Your task to perform on an android device: turn on airplane mode Image 0: 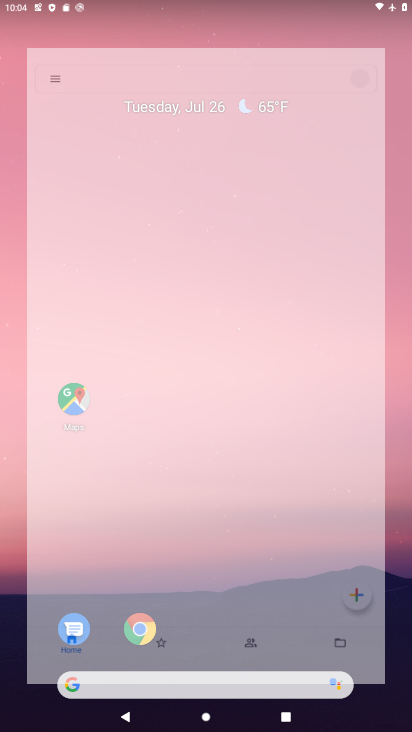
Step 0: drag from (318, 475) to (325, 1)
Your task to perform on an android device: turn on airplane mode Image 1: 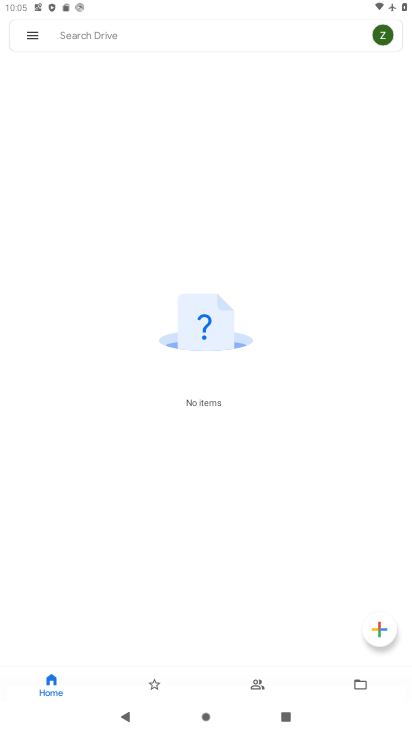
Step 1: press home button
Your task to perform on an android device: turn on airplane mode Image 2: 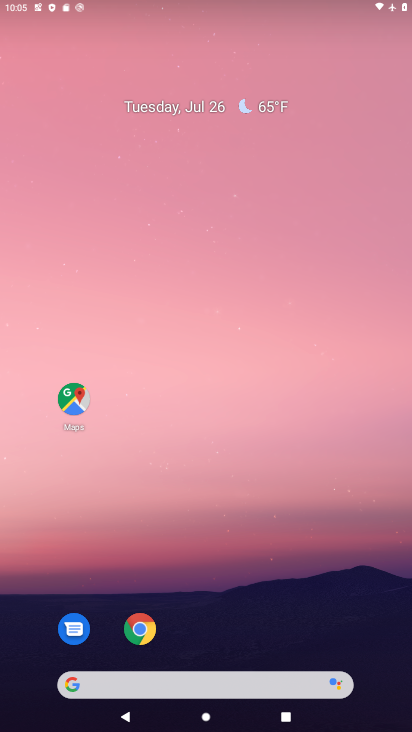
Step 2: drag from (340, 606) to (317, 73)
Your task to perform on an android device: turn on airplane mode Image 3: 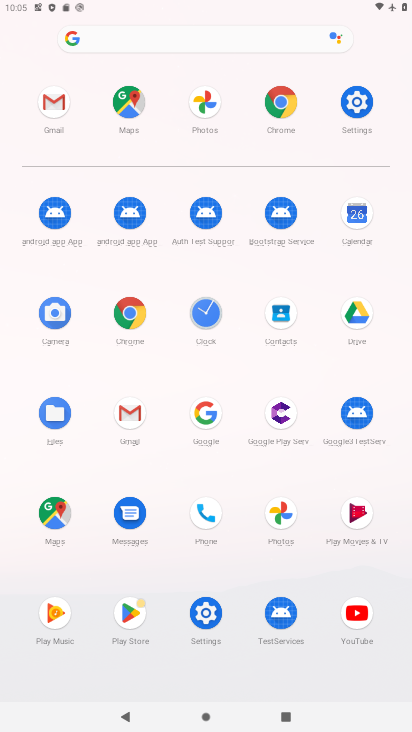
Step 3: click (361, 105)
Your task to perform on an android device: turn on airplane mode Image 4: 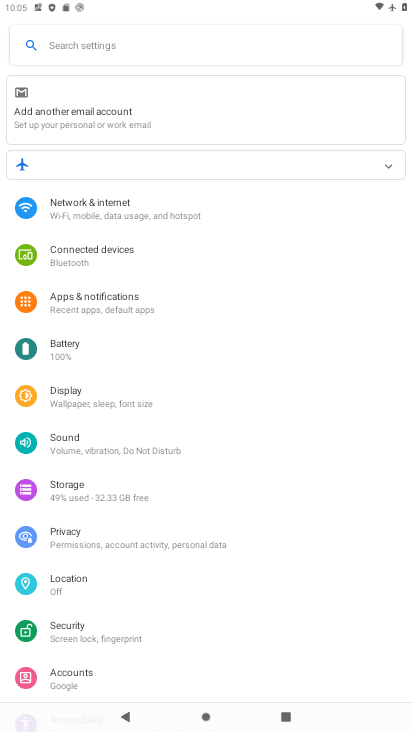
Step 4: click (138, 203)
Your task to perform on an android device: turn on airplane mode Image 5: 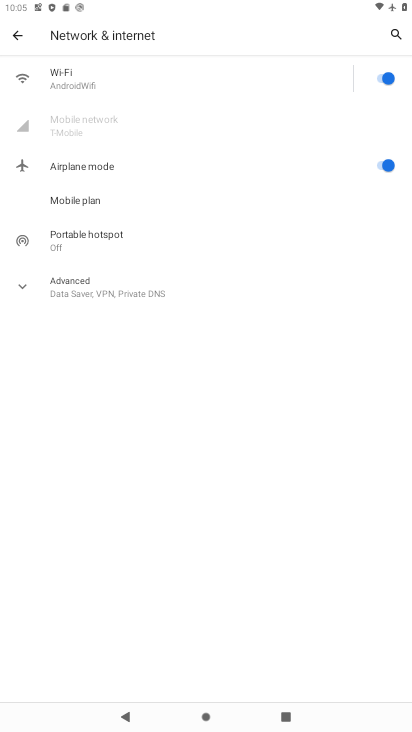
Step 5: task complete